Your task to perform on an android device: Go to settings Image 0: 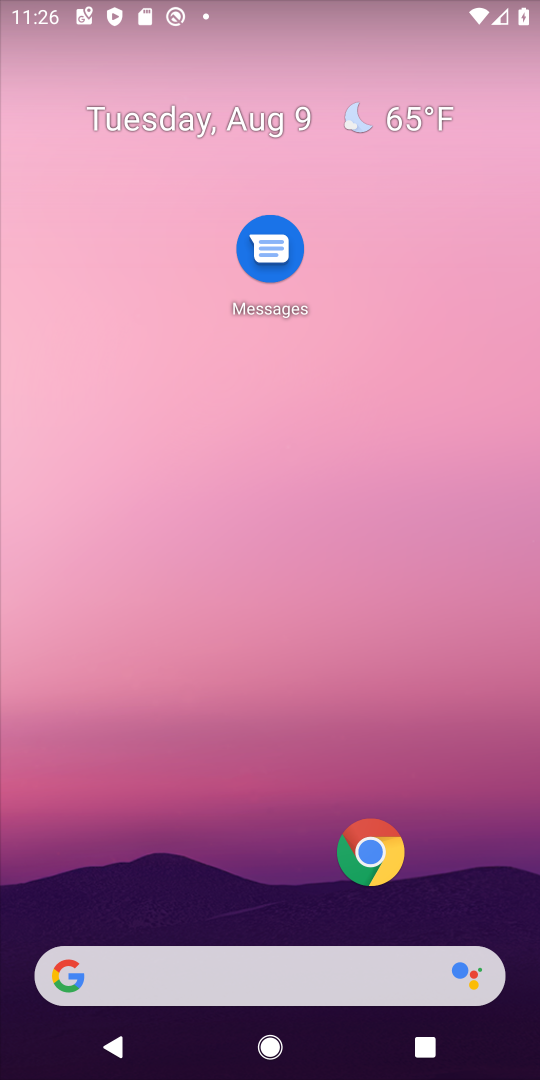
Step 0: drag from (295, 917) to (423, 42)
Your task to perform on an android device: Go to settings Image 1: 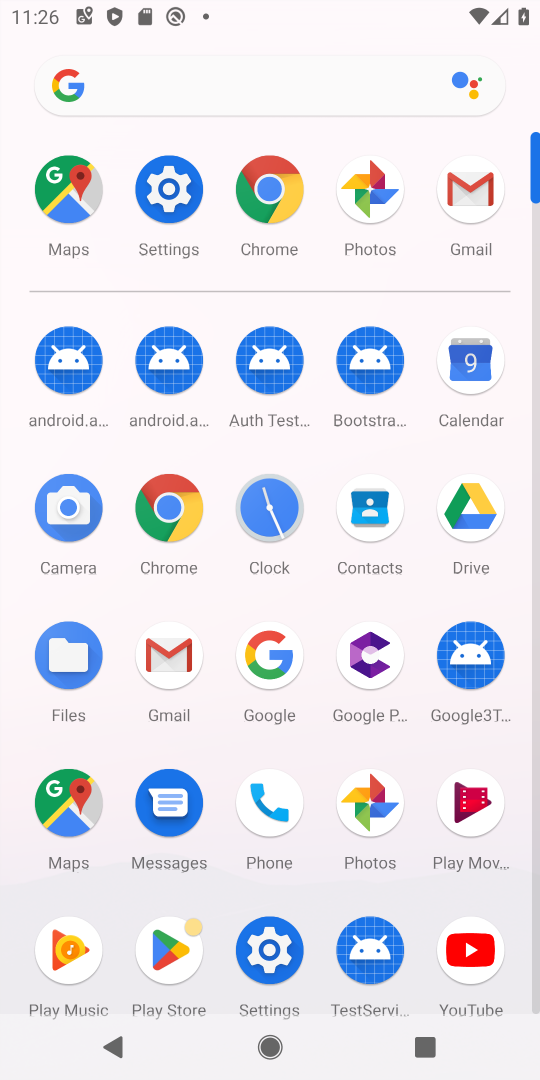
Step 1: click (423, 42)
Your task to perform on an android device: Go to settings Image 2: 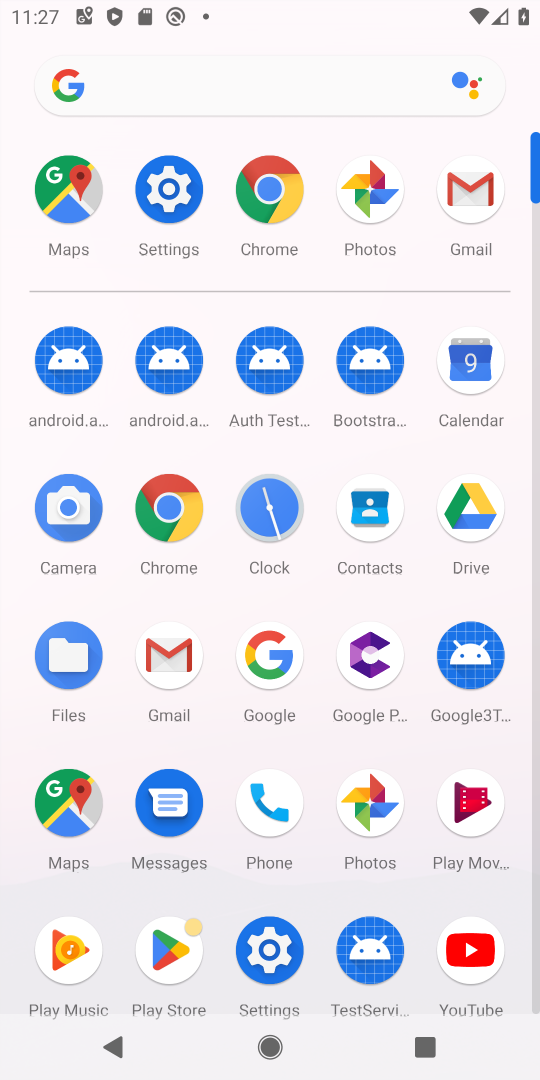
Step 2: click (161, 180)
Your task to perform on an android device: Go to settings Image 3: 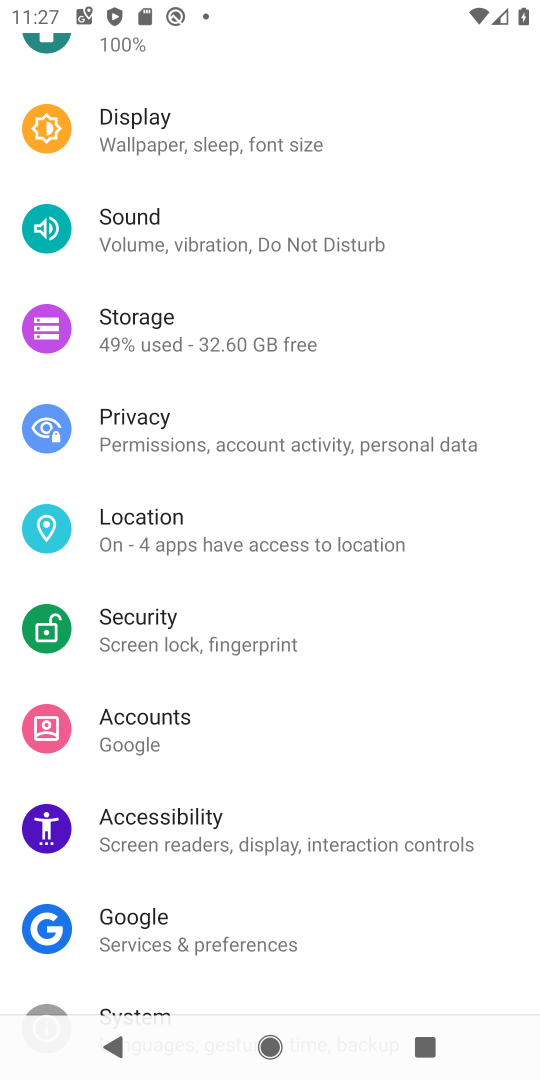
Step 3: task complete